Your task to perform on an android device: Show me the alarms in the clock app Image 0: 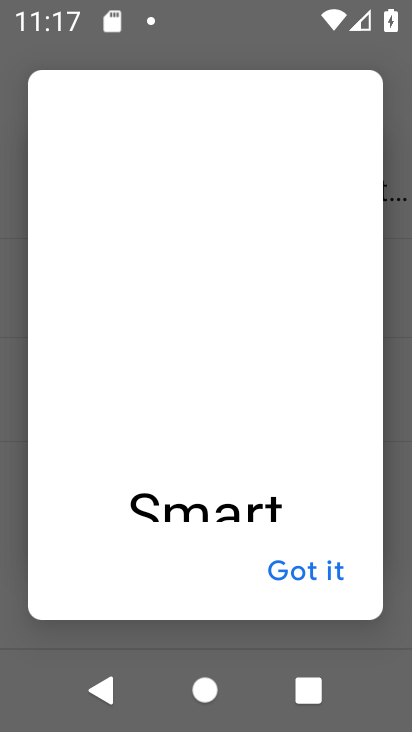
Step 0: press home button
Your task to perform on an android device: Show me the alarms in the clock app Image 1: 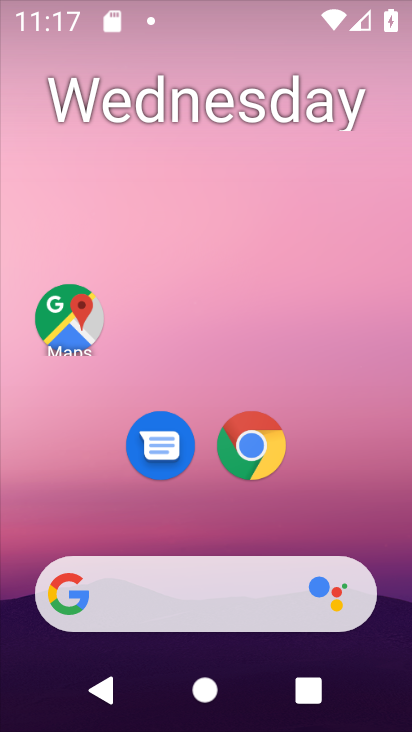
Step 1: drag from (399, 599) to (308, 36)
Your task to perform on an android device: Show me the alarms in the clock app Image 2: 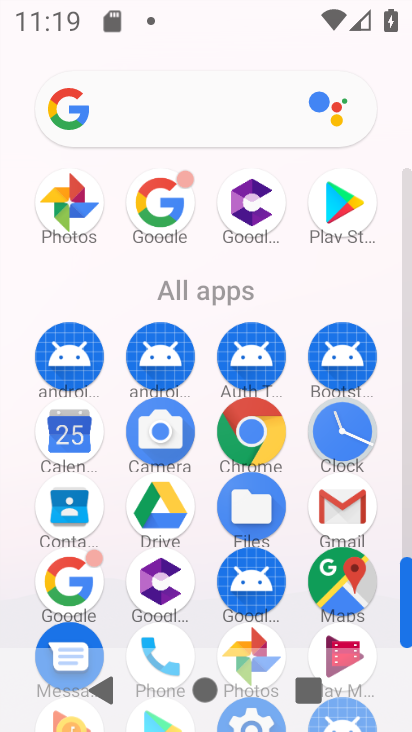
Step 2: click (350, 441)
Your task to perform on an android device: Show me the alarms in the clock app Image 3: 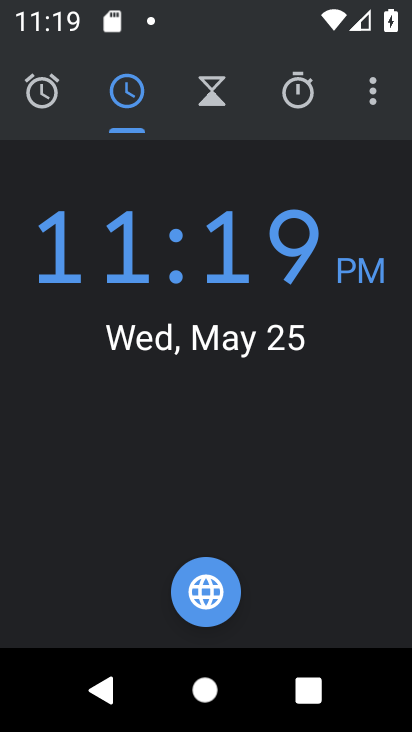
Step 3: click (49, 91)
Your task to perform on an android device: Show me the alarms in the clock app Image 4: 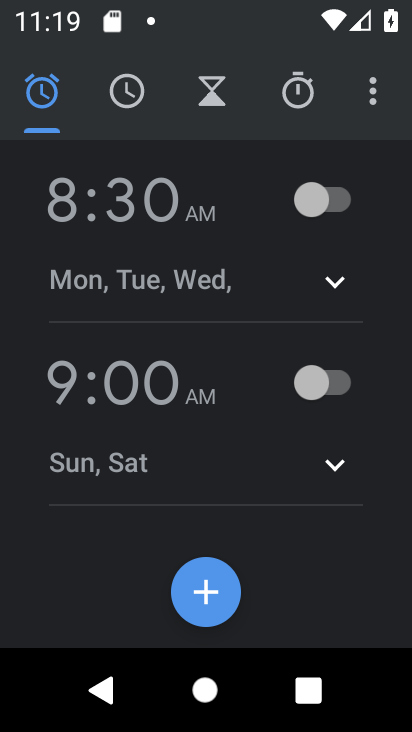
Step 4: task complete